Your task to perform on an android device: turn vacation reply on in the gmail app Image 0: 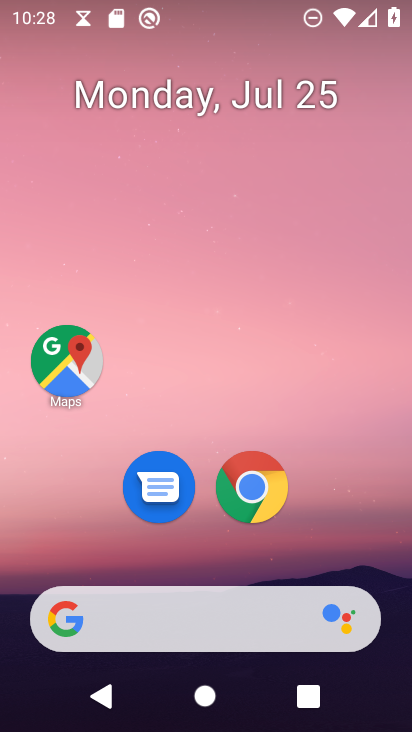
Step 0: drag from (216, 571) to (262, 61)
Your task to perform on an android device: turn vacation reply on in the gmail app Image 1: 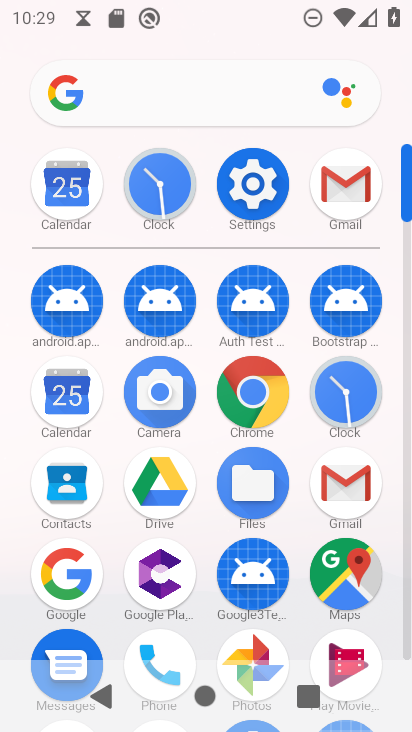
Step 1: click (378, 190)
Your task to perform on an android device: turn vacation reply on in the gmail app Image 2: 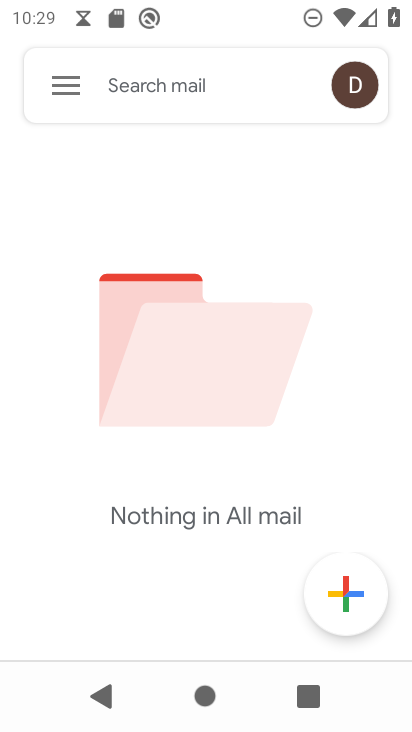
Step 2: click (70, 82)
Your task to perform on an android device: turn vacation reply on in the gmail app Image 3: 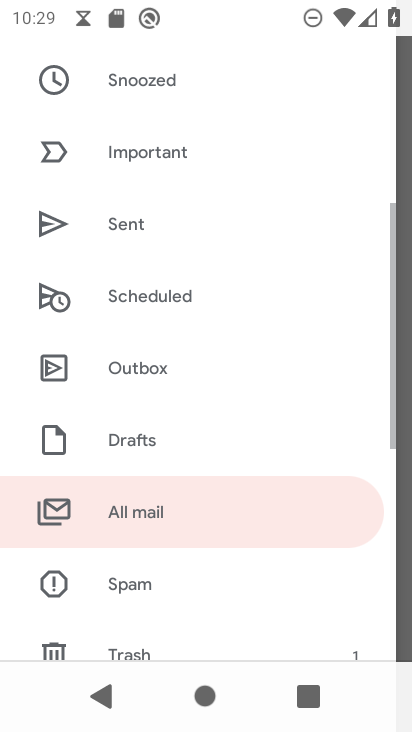
Step 3: drag from (124, 585) to (134, 19)
Your task to perform on an android device: turn vacation reply on in the gmail app Image 4: 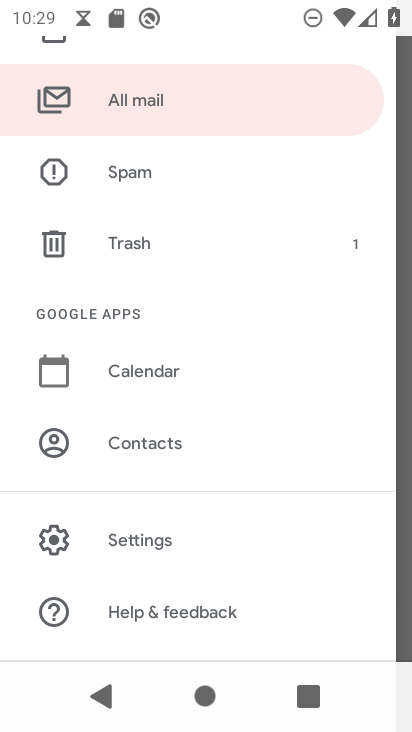
Step 4: click (134, 523)
Your task to perform on an android device: turn vacation reply on in the gmail app Image 5: 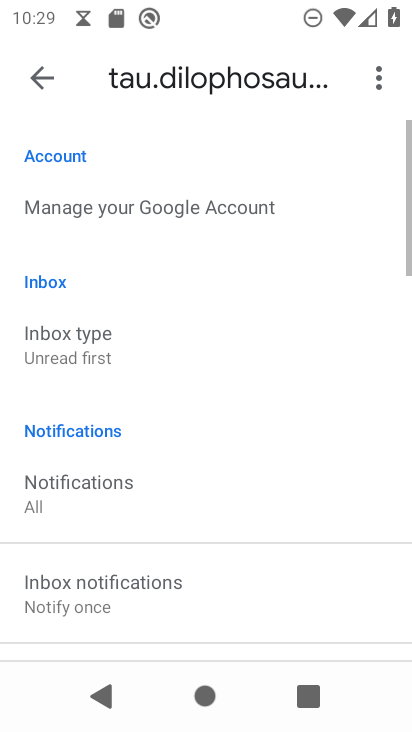
Step 5: drag from (199, 229) to (238, 257)
Your task to perform on an android device: turn vacation reply on in the gmail app Image 6: 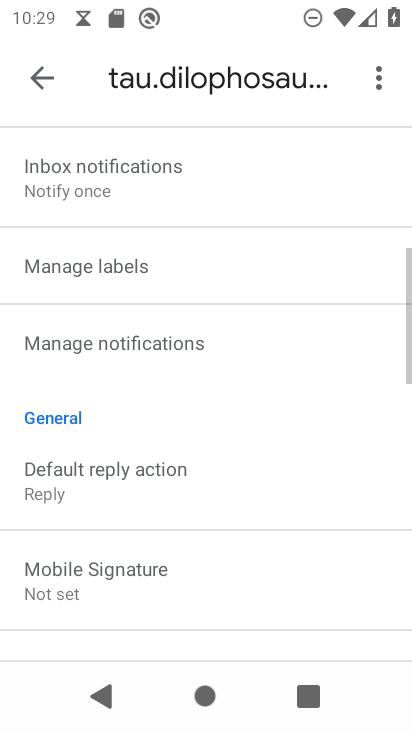
Step 6: drag from (180, 579) to (226, 126)
Your task to perform on an android device: turn vacation reply on in the gmail app Image 7: 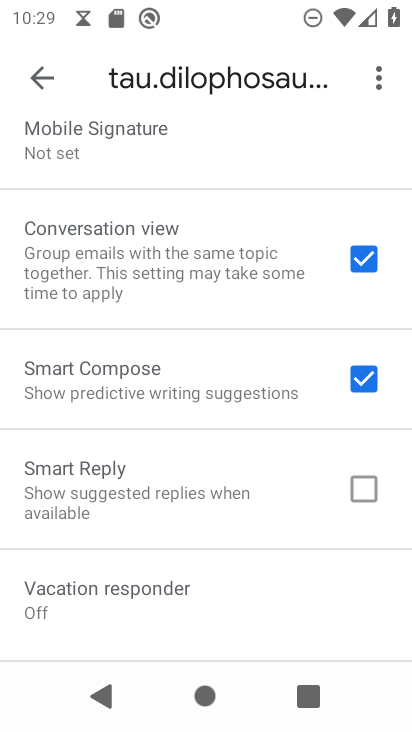
Step 7: click (136, 593)
Your task to perform on an android device: turn vacation reply on in the gmail app Image 8: 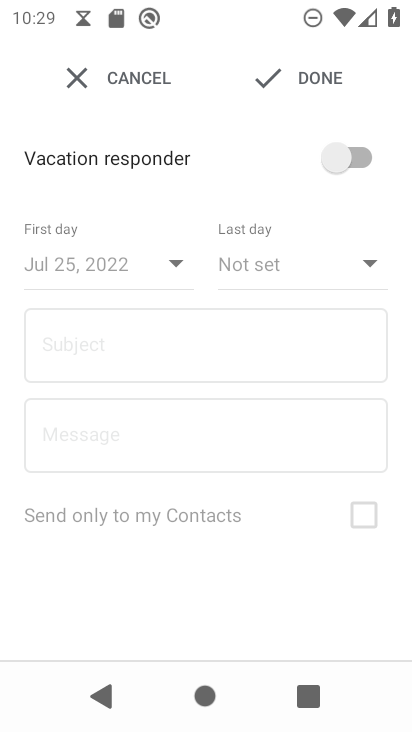
Step 8: click (338, 154)
Your task to perform on an android device: turn vacation reply on in the gmail app Image 9: 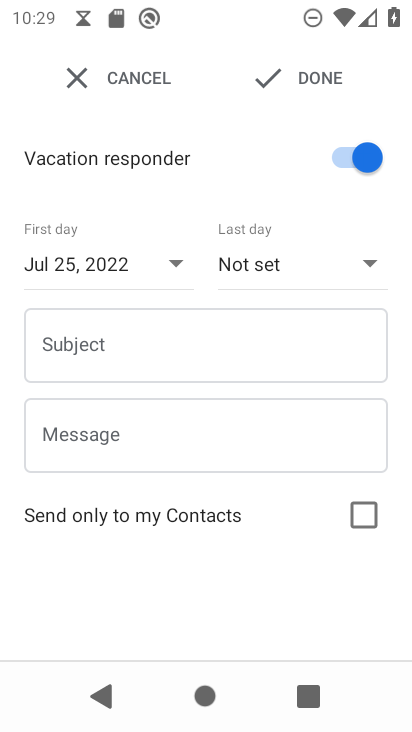
Step 9: task complete